Your task to perform on an android device: turn off airplane mode Image 0: 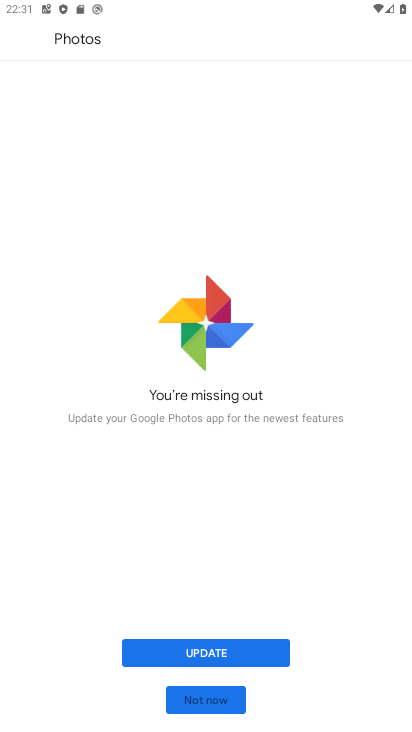
Step 0: press home button
Your task to perform on an android device: turn off airplane mode Image 1: 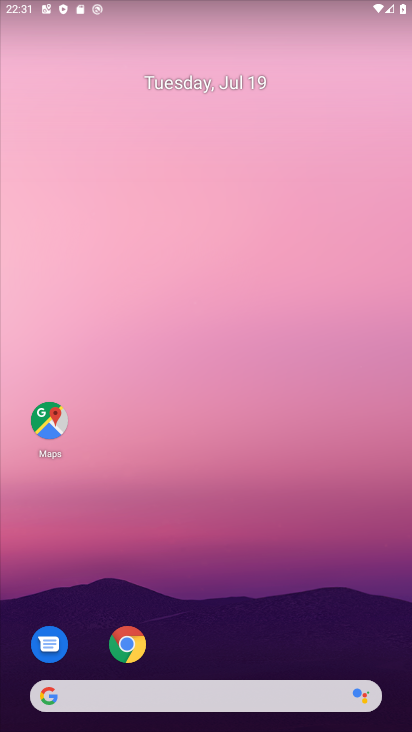
Step 1: drag from (243, 658) to (183, 178)
Your task to perform on an android device: turn off airplane mode Image 2: 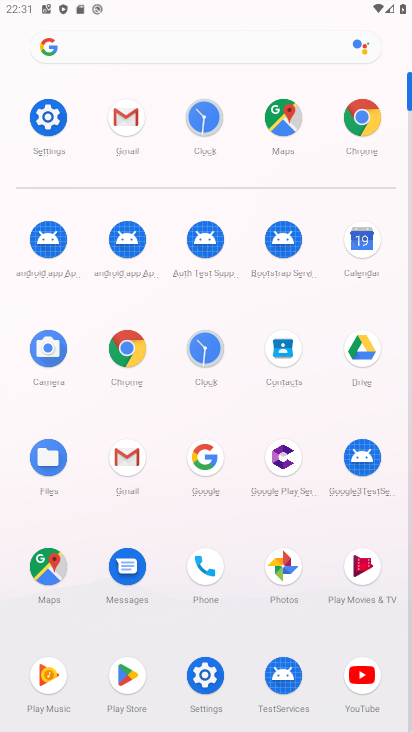
Step 2: click (49, 129)
Your task to perform on an android device: turn off airplane mode Image 3: 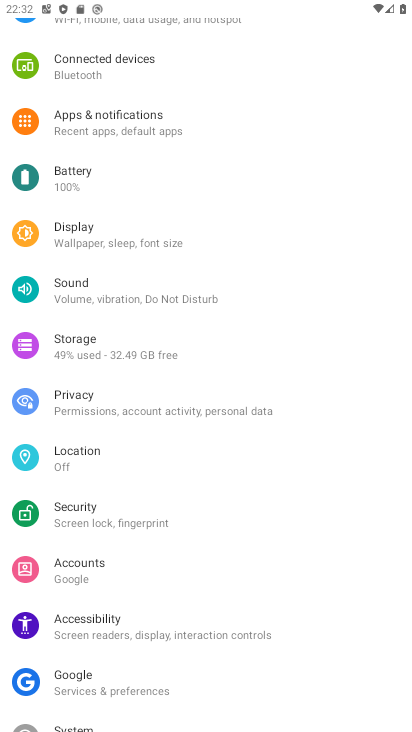
Step 3: drag from (118, 80) to (125, 429)
Your task to perform on an android device: turn off airplane mode Image 4: 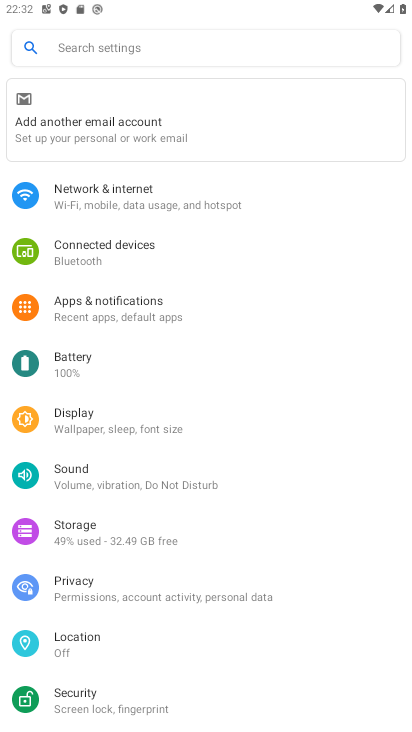
Step 4: click (86, 198)
Your task to perform on an android device: turn off airplane mode Image 5: 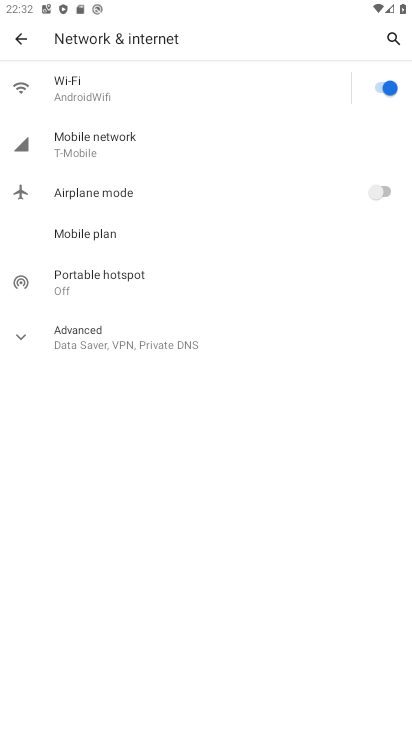
Step 5: task complete